Your task to perform on an android device: Go to Amazon Image 0: 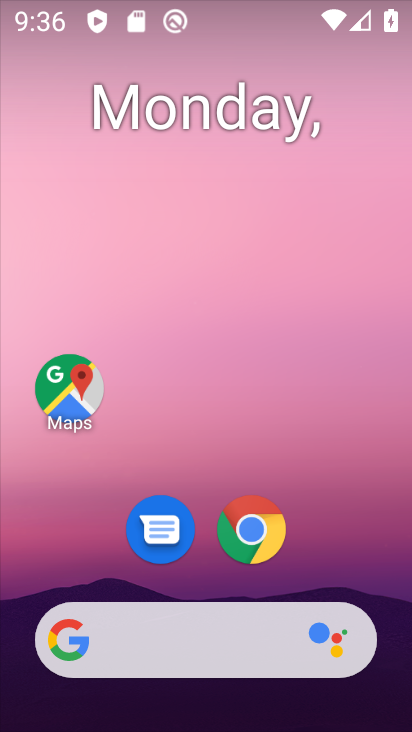
Step 0: drag from (318, 558) to (302, 16)
Your task to perform on an android device: Go to Amazon Image 1: 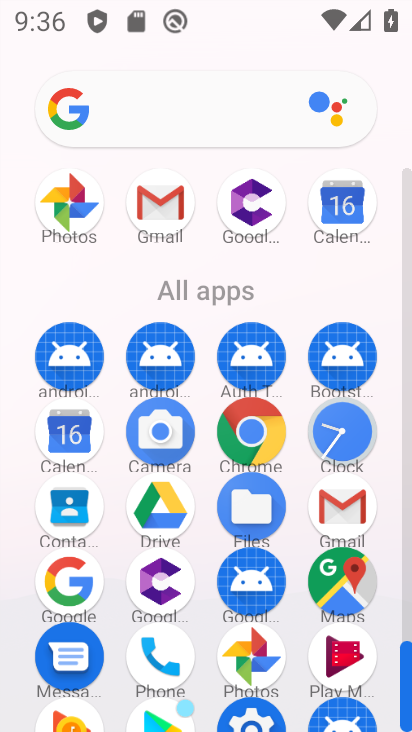
Step 1: click (260, 432)
Your task to perform on an android device: Go to Amazon Image 2: 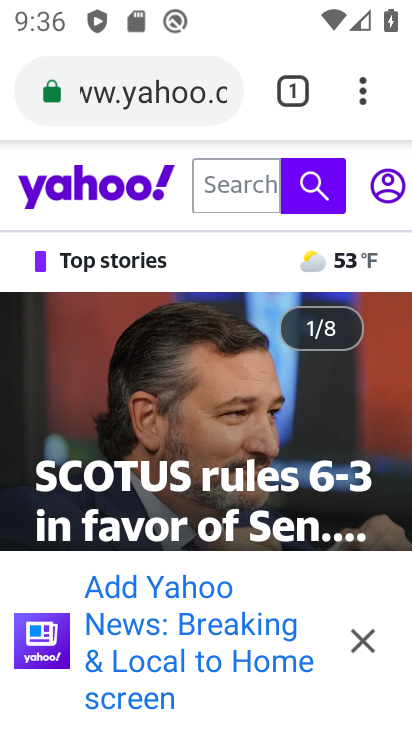
Step 2: press back button
Your task to perform on an android device: Go to Amazon Image 3: 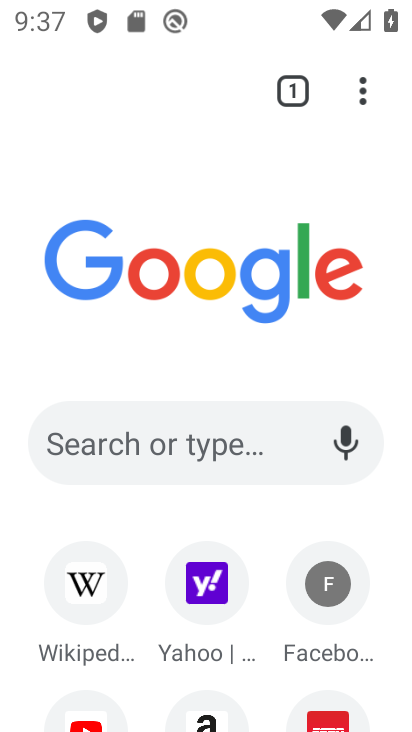
Step 3: drag from (287, 630) to (288, 282)
Your task to perform on an android device: Go to Amazon Image 4: 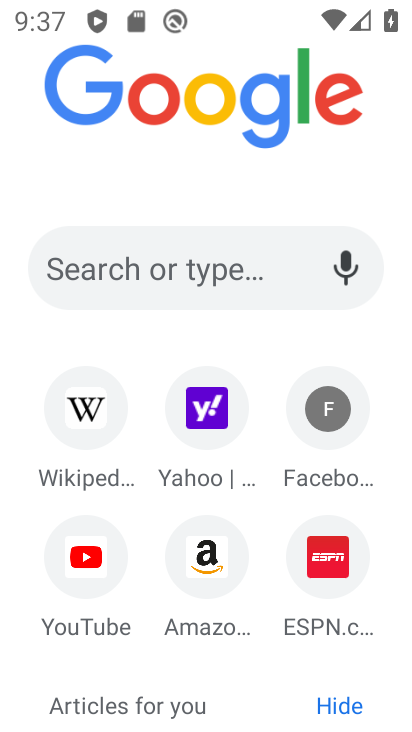
Step 4: click (224, 572)
Your task to perform on an android device: Go to Amazon Image 5: 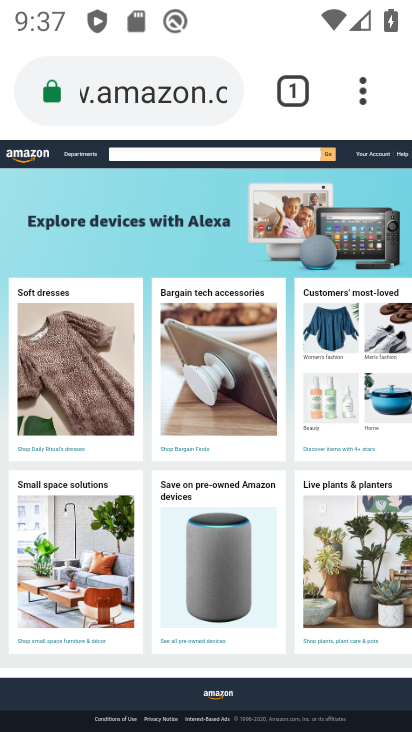
Step 5: task complete